Your task to perform on an android device: Go to privacy settings Image 0: 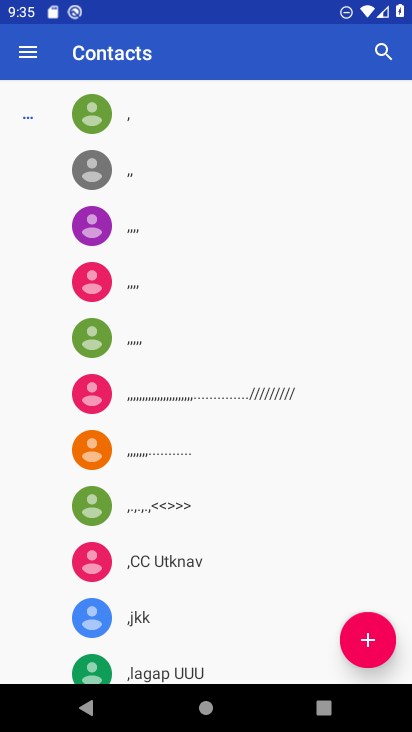
Step 0: press home button
Your task to perform on an android device: Go to privacy settings Image 1: 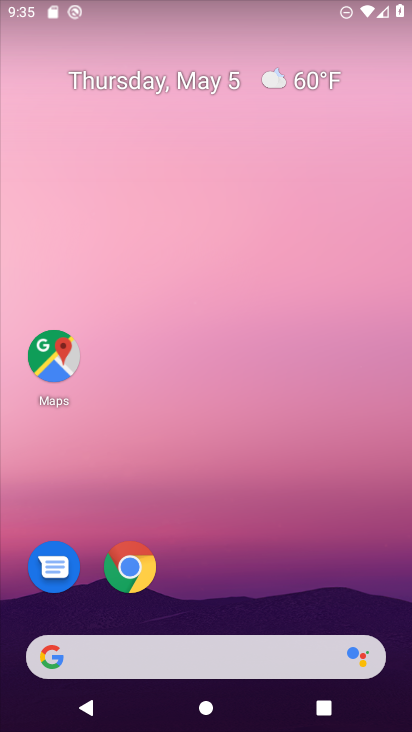
Step 1: drag from (222, 720) to (203, 235)
Your task to perform on an android device: Go to privacy settings Image 2: 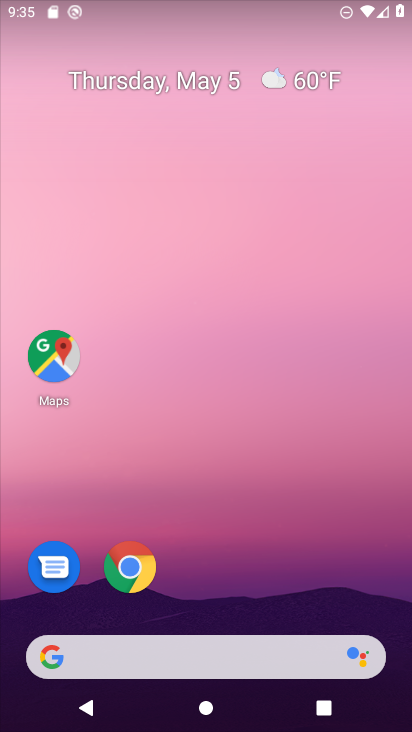
Step 2: drag from (222, 725) to (221, 196)
Your task to perform on an android device: Go to privacy settings Image 3: 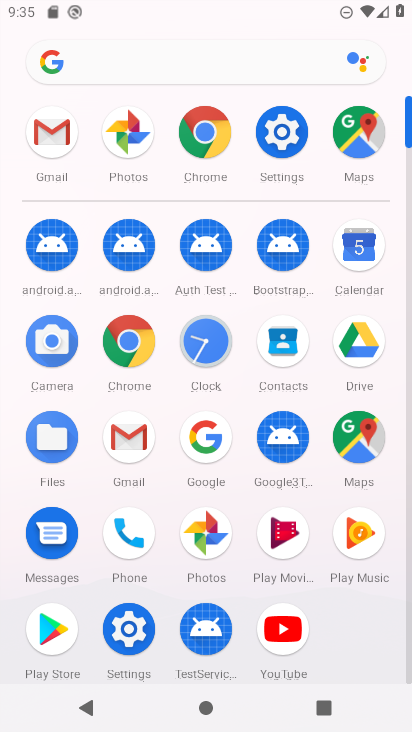
Step 3: click (281, 128)
Your task to perform on an android device: Go to privacy settings Image 4: 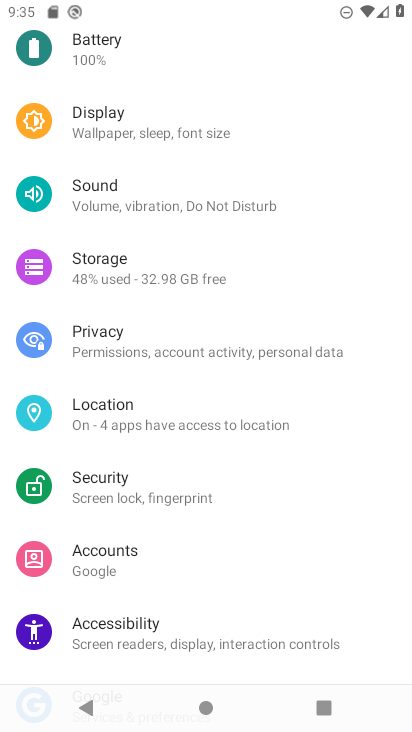
Step 4: click (95, 338)
Your task to perform on an android device: Go to privacy settings Image 5: 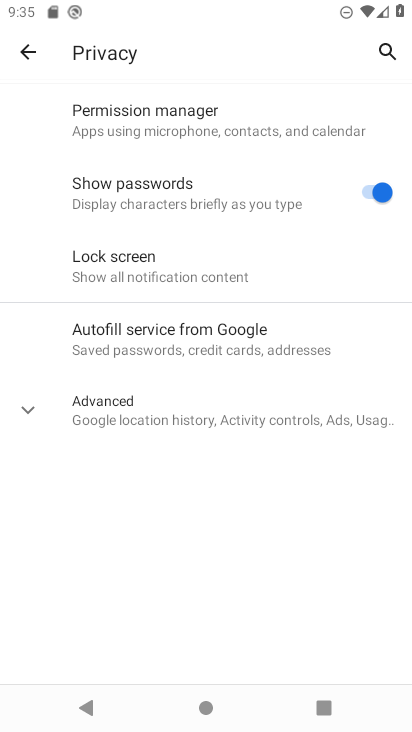
Step 5: task complete